Your task to perform on an android device: manage bookmarks in the chrome app Image 0: 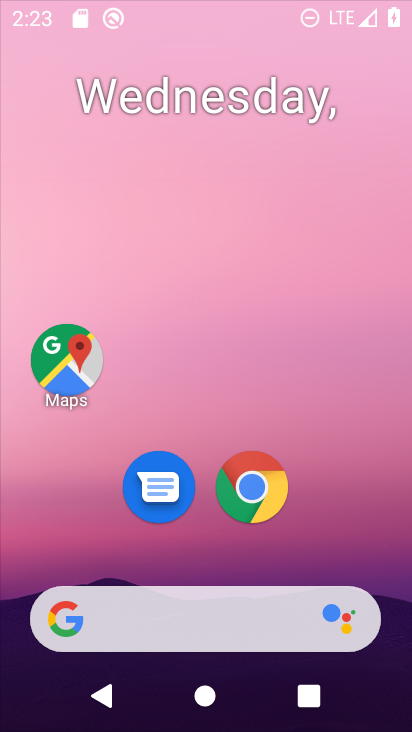
Step 0: drag from (392, 614) to (215, 67)
Your task to perform on an android device: manage bookmarks in the chrome app Image 1: 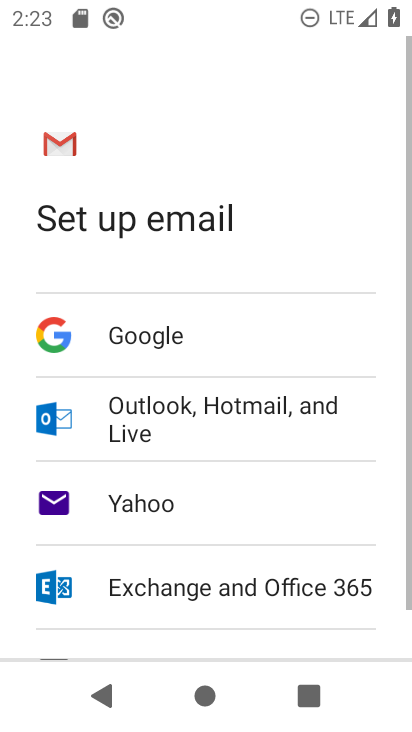
Step 1: press home button
Your task to perform on an android device: manage bookmarks in the chrome app Image 2: 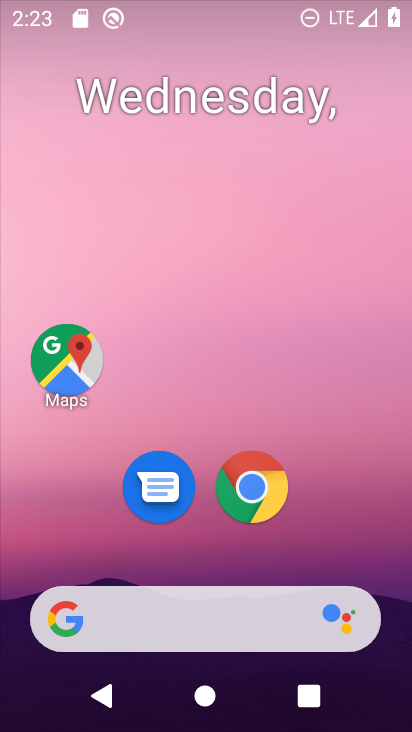
Step 2: drag from (393, 611) to (258, 125)
Your task to perform on an android device: manage bookmarks in the chrome app Image 3: 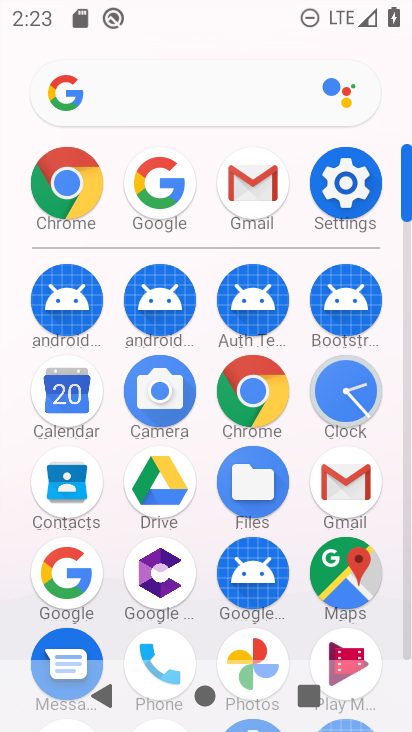
Step 3: click (268, 396)
Your task to perform on an android device: manage bookmarks in the chrome app Image 4: 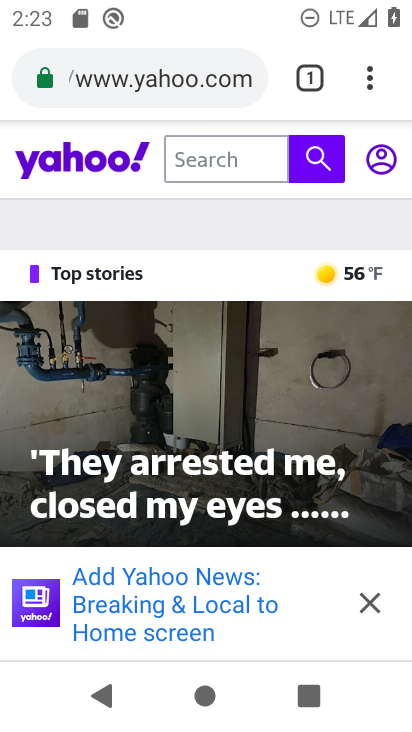
Step 4: press back button
Your task to perform on an android device: manage bookmarks in the chrome app Image 5: 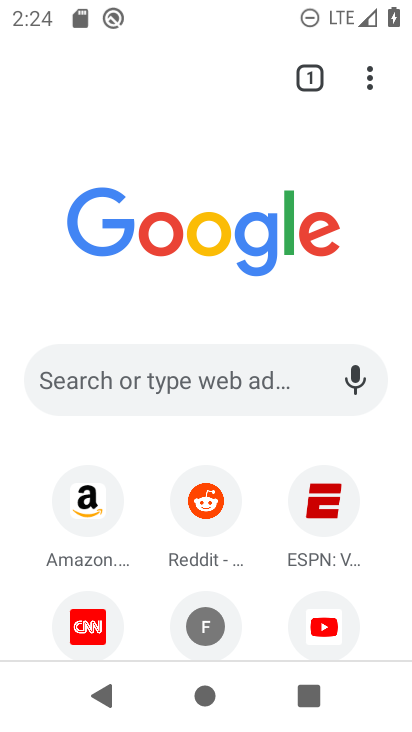
Step 5: click (374, 80)
Your task to perform on an android device: manage bookmarks in the chrome app Image 6: 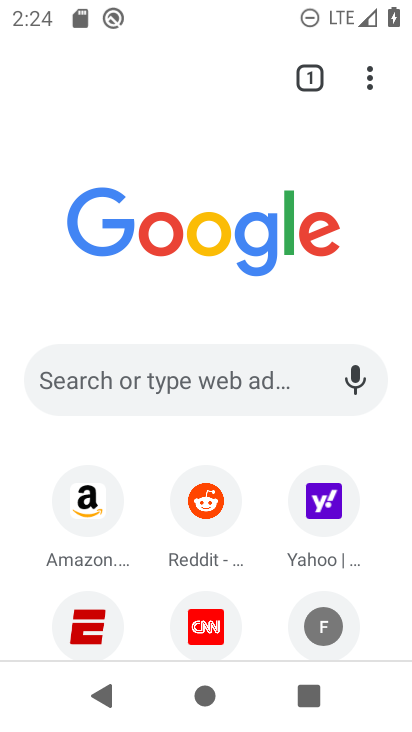
Step 6: click (368, 84)
Your task to perform on an android device: manage bookmarks in the chrome app Image 7: 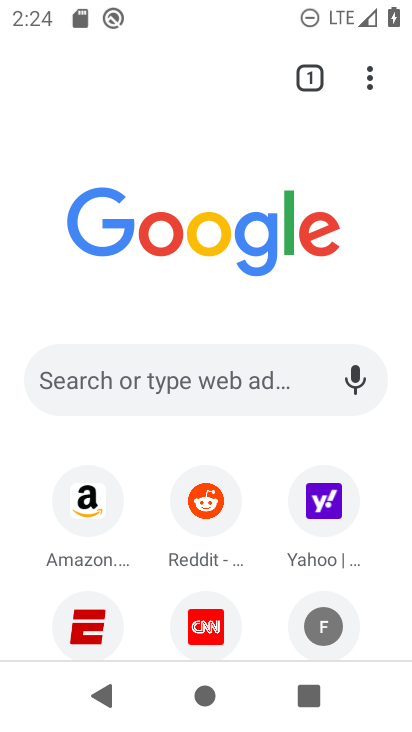
Step 7: click (367, 82)
Your task to perform on an android device: manage bookmarks in the chrome app Image 8: 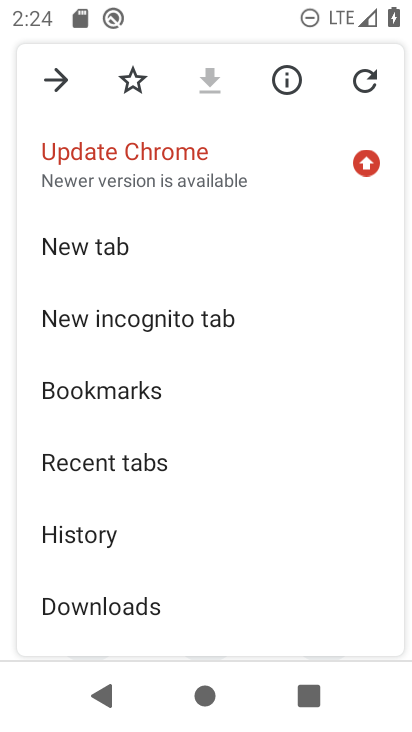
Step 8: click (171, 388)
Your task to perform on an android device: manage bookmarks in the chrome app Image 9: 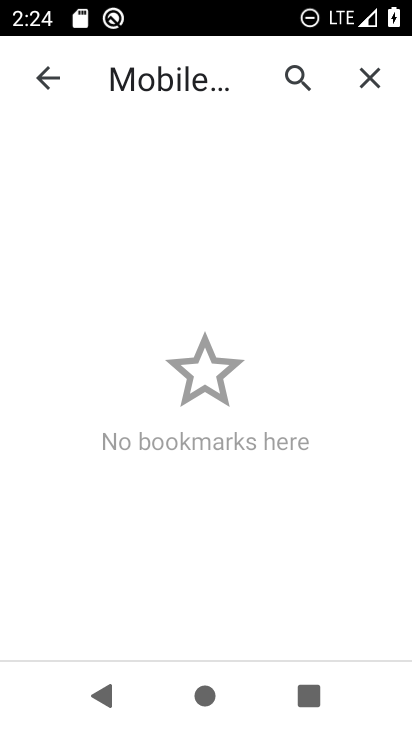
Step 9: task complete